Your task to perform on an android device: Open Android settings Image 0: 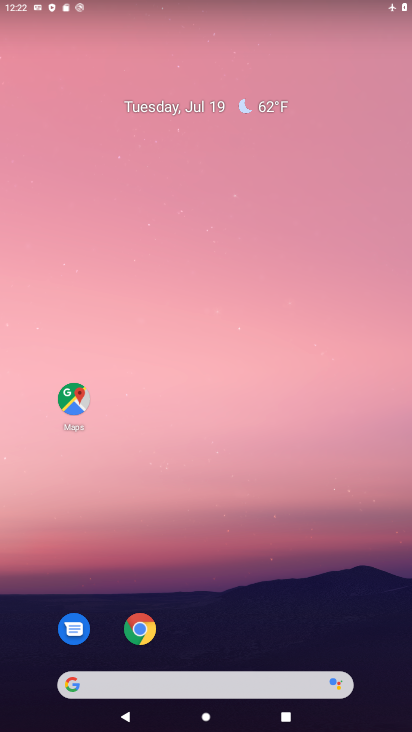
Step 0: drag from (194, 676) to (234, 3)
Your task to perform on an android device: Open Android settings Image 1: 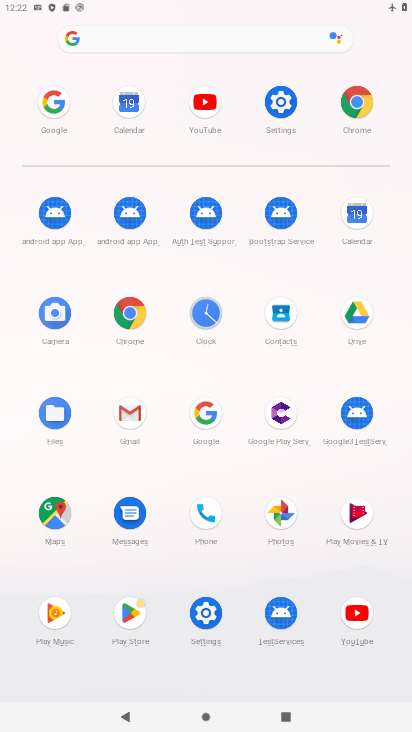
Step 1: click (280, 94)
Your task to perform on an android device: Open Android settings Image 2: 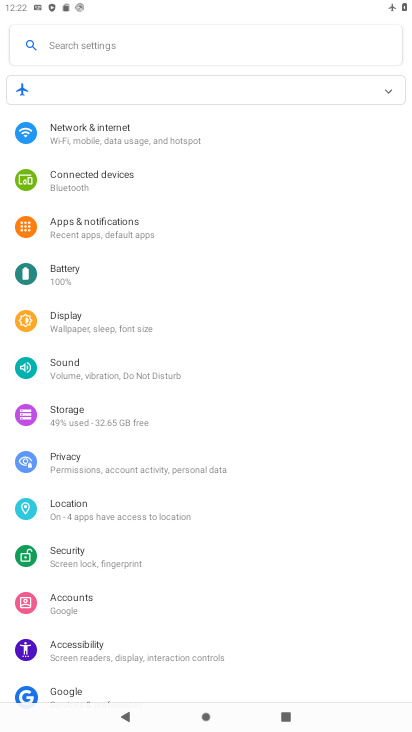
Step 2: task complete